Your task to perform on an android device: snooze an email in the gmail app Image 0: 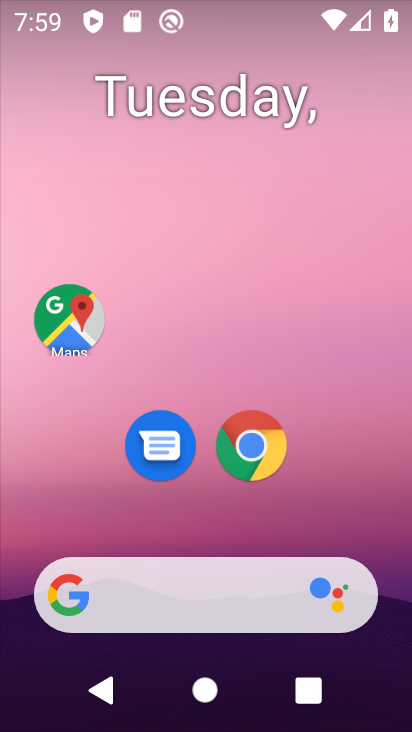
Step 0: drag from (218, 533) to (250, 315)
Your task to perform on an android device: snooze an email in the gmail app Image 1: 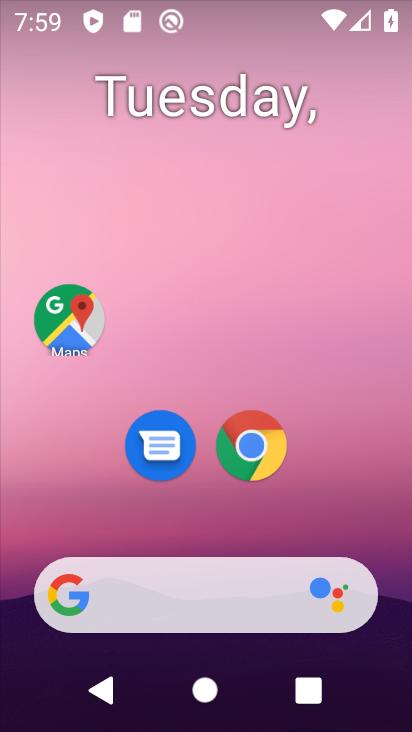
Step 1: drag from (157, 579) to (200, 267)
Your task to perform on an android device: snooze an email in the gmail app Image 2: 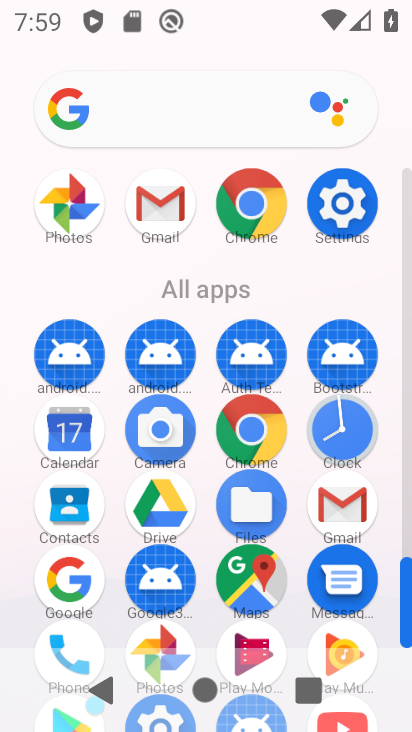
Step 2: click (175, 208)
Your task to perform on an android device: snooze an email in the gmail app Image 3: 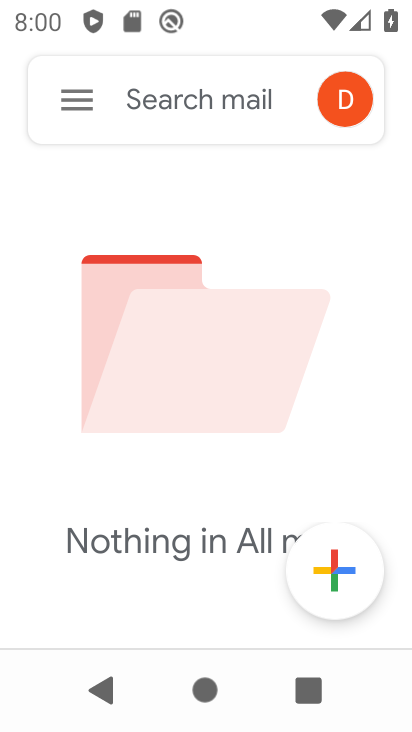
Step 3: click (72, 110)
Your task to perform on an android device: snooze an email in the gmail app Image 4: 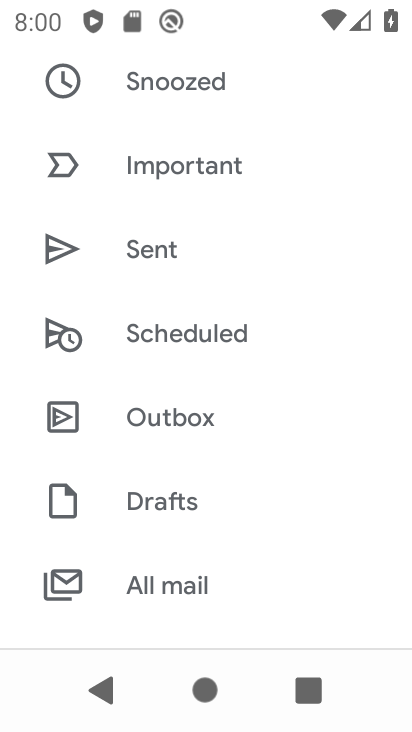
Step 4: click (168, 84)
Your task to perform on an android device: snooze an email in the gmail app Image 5: 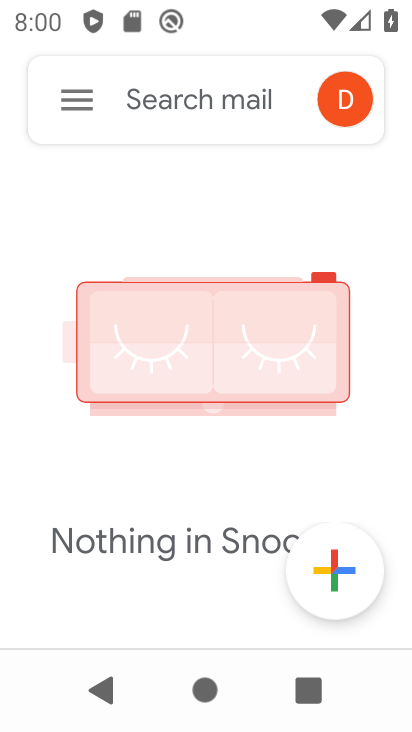
Step 5: task complete